Your task to perform on an android device: turn off priority inbox in the gmail app Image 0: 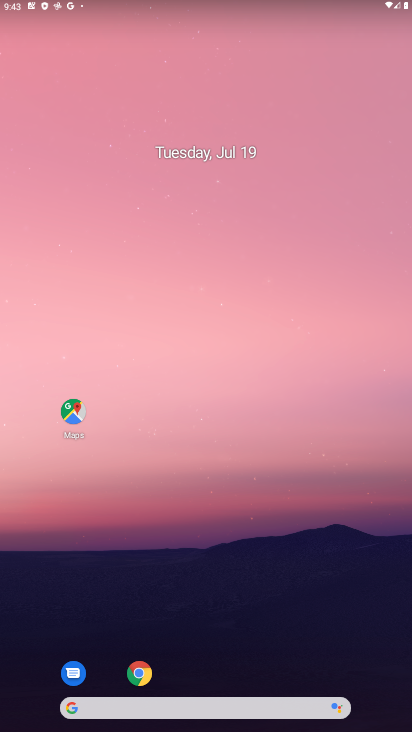
Step 0: drag from (327, 639) to (192, 1)
Your task to perform on an android device: turn off priority inbox in the gmail app Image 1: 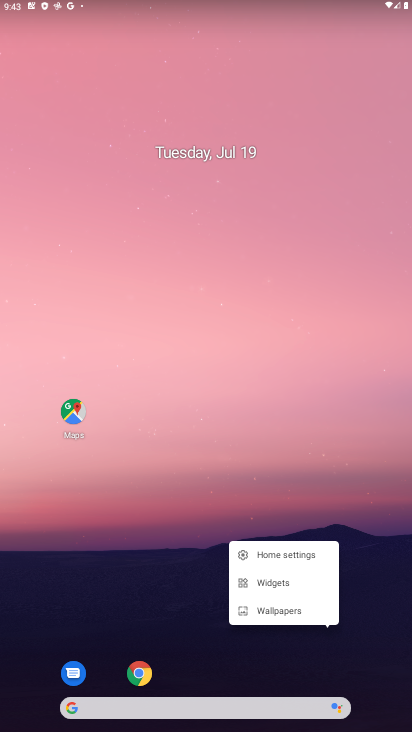
Step 1: click (187, 369)
Your task to perform on an android device: turn off priority inbox in the gmail app Image 2: 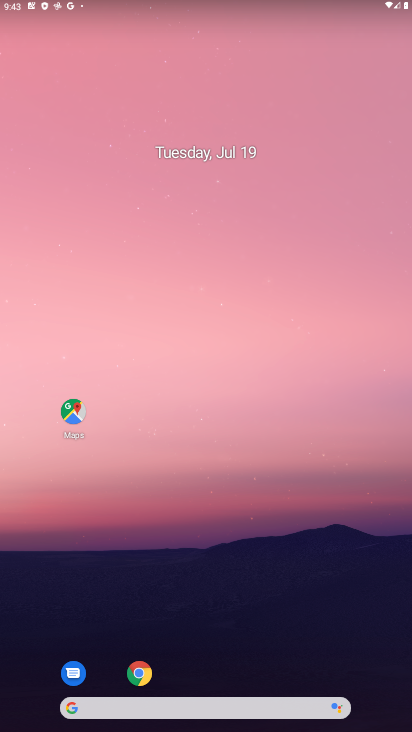
Step 2: drag from (215, 683) to (180, 250)
Your task to perform on an android device: turn off priority inbox in the gmail app Image 3: 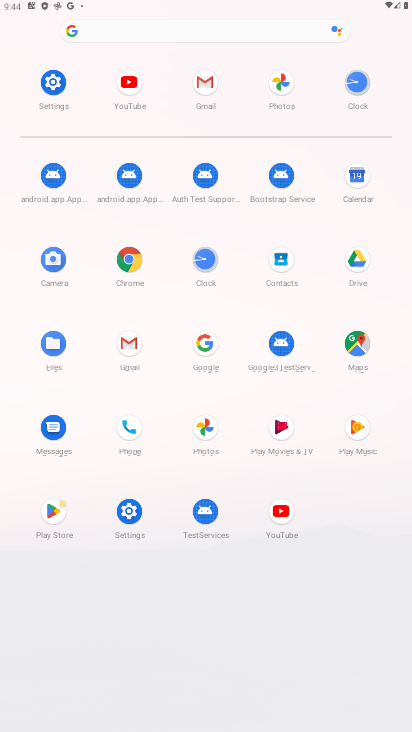
Step 3: click (213, 86)
Your task to perform on an android device: turn off priority inbox in the gmail app Image 4: 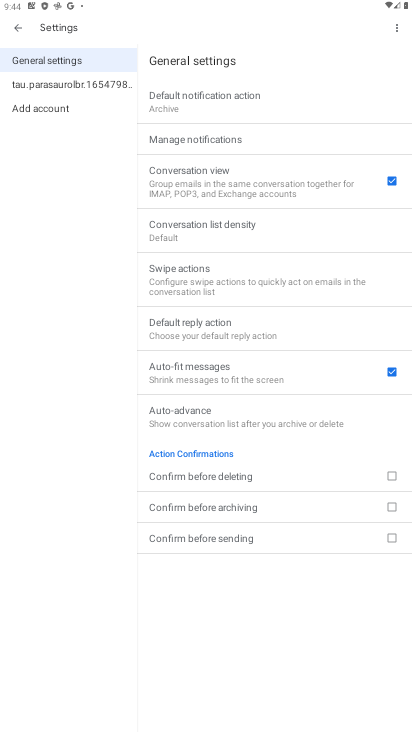
Step 4: task complete